Your task to perform on an android device: Find coffee shops on Maps Image 0: 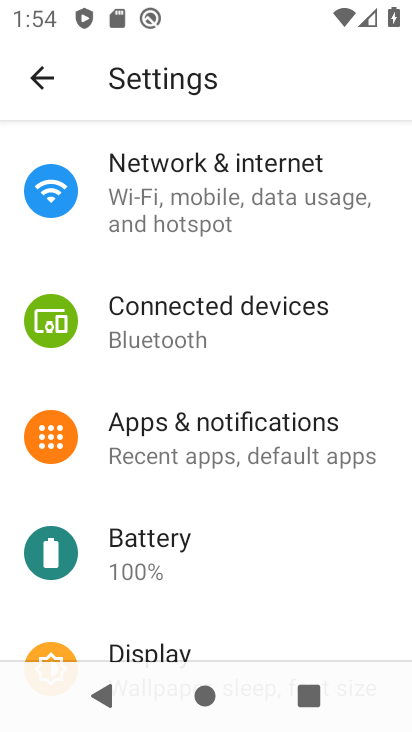
Step 0: press home button
Your task to perform on an android device: Find coffee shops on Maps Image 1: 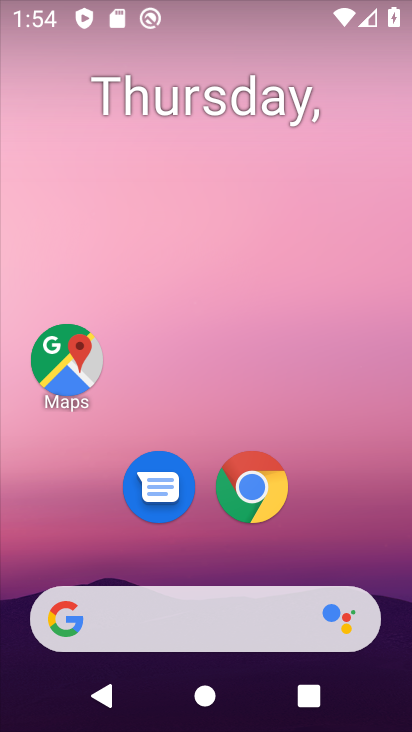
Step 1: click (60, 349)
Your task to perform on an android device: Find coffee shops on Maps Image 2: 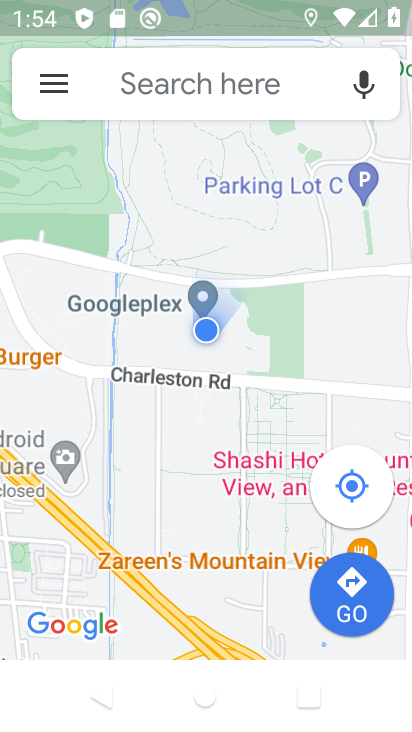
Step 2: click (144, 74)
Your task to perform on an android device: Find coffee shops on Maps Image 3: 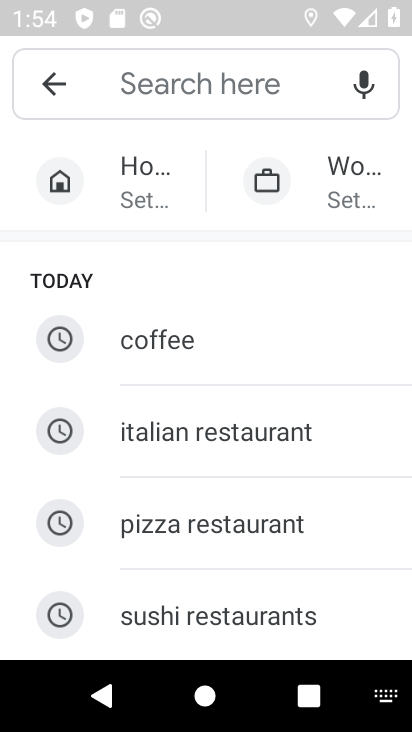
Step 3: type "coffee shops"
Your task to perform on an android device: Find coffee shops on Maps Image 4: 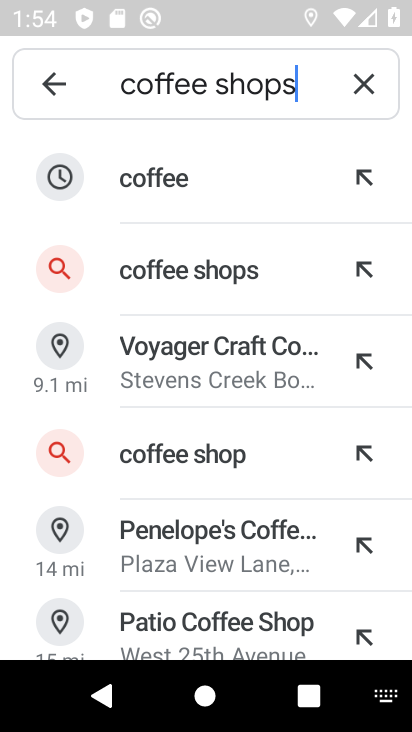
Step 4: click (321, 249)
Your task to perform on an android device: Find coffee shops on Maps Image 5: 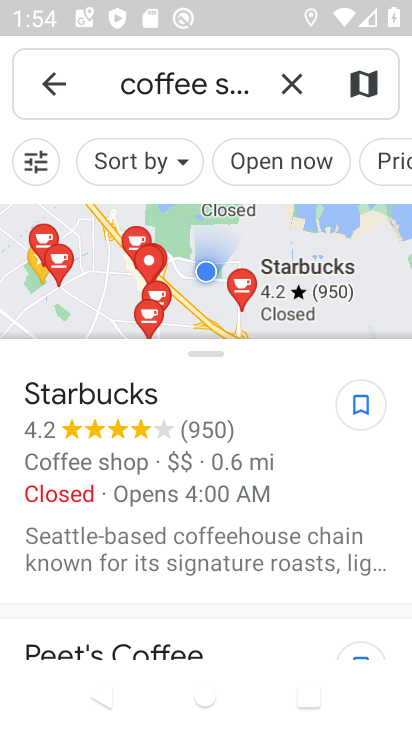
Step 5: task complete